Your task to perform on an android device: Is it going to rain tomorrow? Image 0: 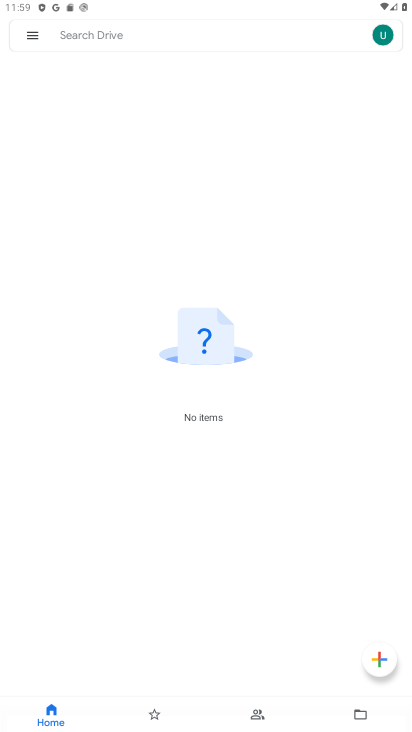
Step 0: press home button
Your task to perform on an android device: Is it going to rain tomorrow? Image 1: 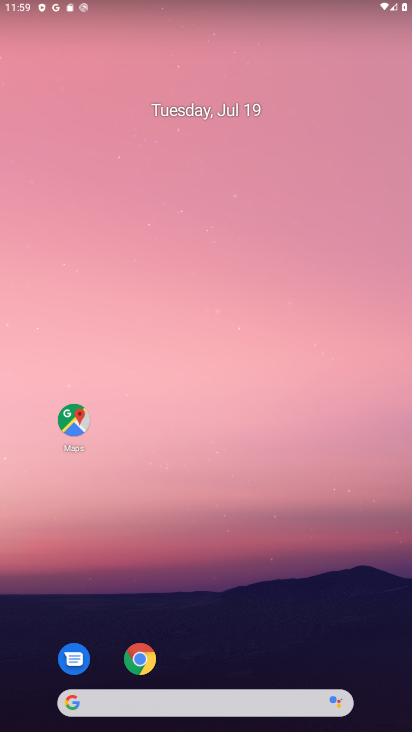
Step 1: click (208, 698)
Your task to perform on an android device: Is it going to rain tomorrow? Image 2: 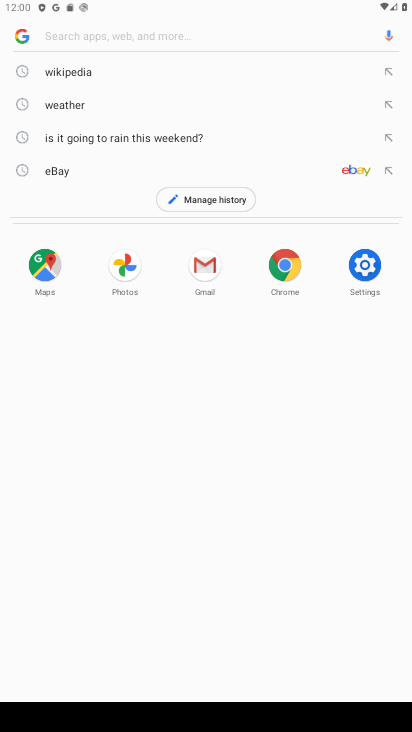
Step 2: click (92, 100)
Your task to perform on an android device: Is it going to rain tomorrow? Image 3: 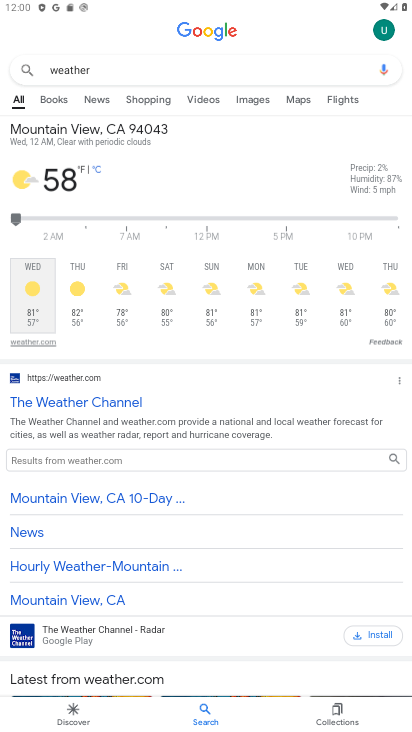
Step 3: click (80, 287)
Your task to perform on an android device: Is it going to rain tomorrow? Image 4: 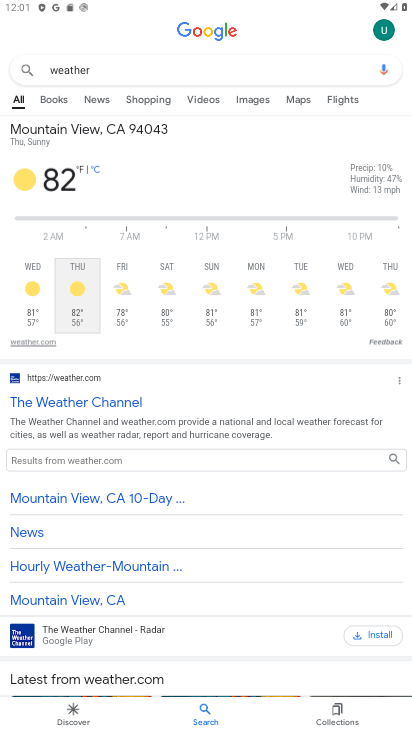
Step 4: task complete